Your task to perform on an android device: turn off translation in the chrome app Image 0: 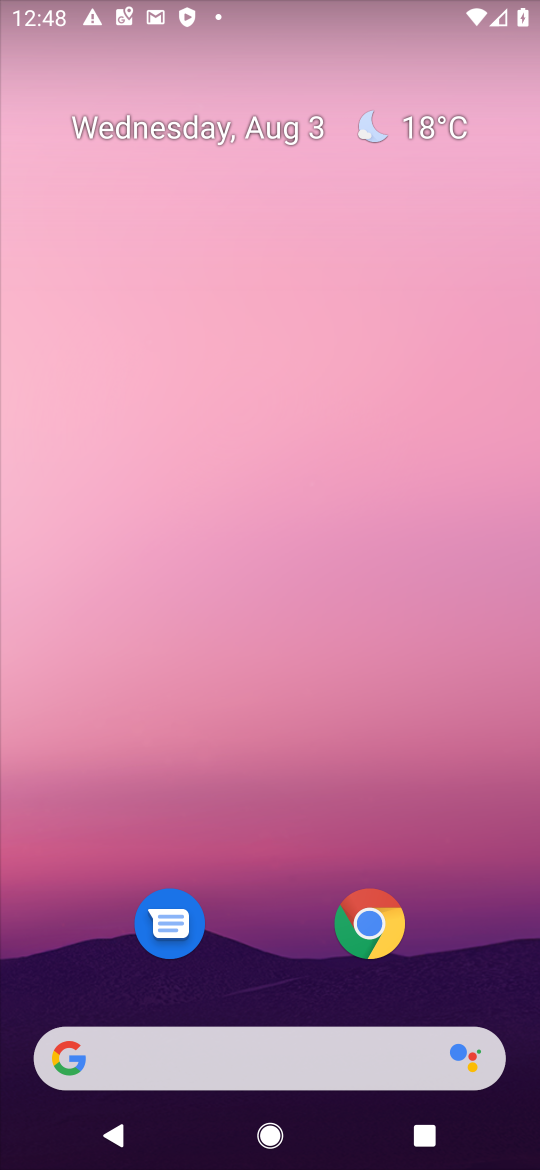
Step 0: drag from (353, 658) to (403, 328)
Your task to perform on an android device: turn off translation in the chrome app Image 1: 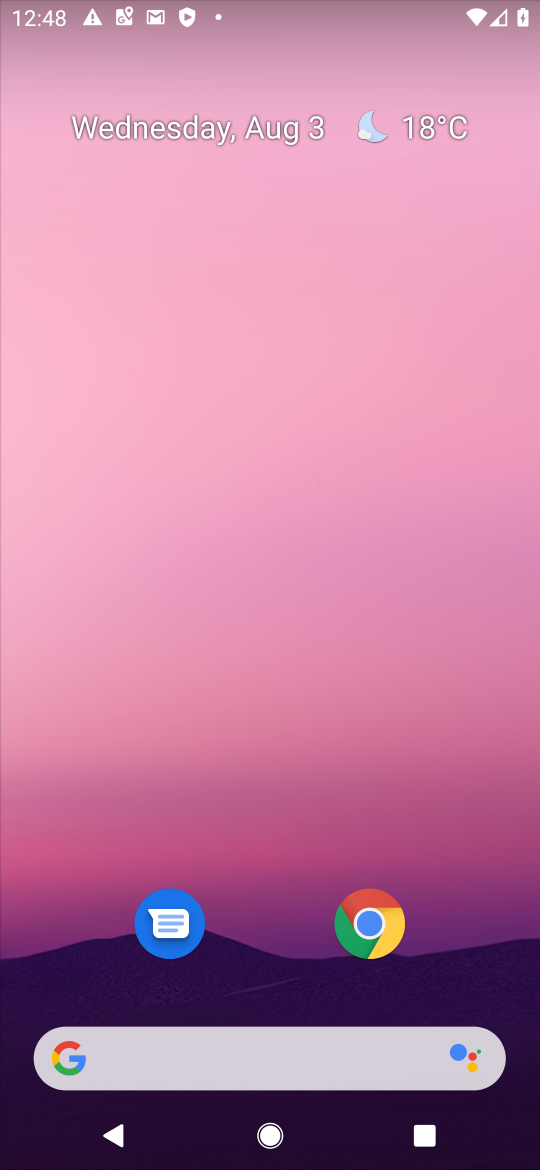
Step 1: drag from (258, 764) to (238, 419)
Your task to perform on an android device: turn off translation in the chrome app Image 2: 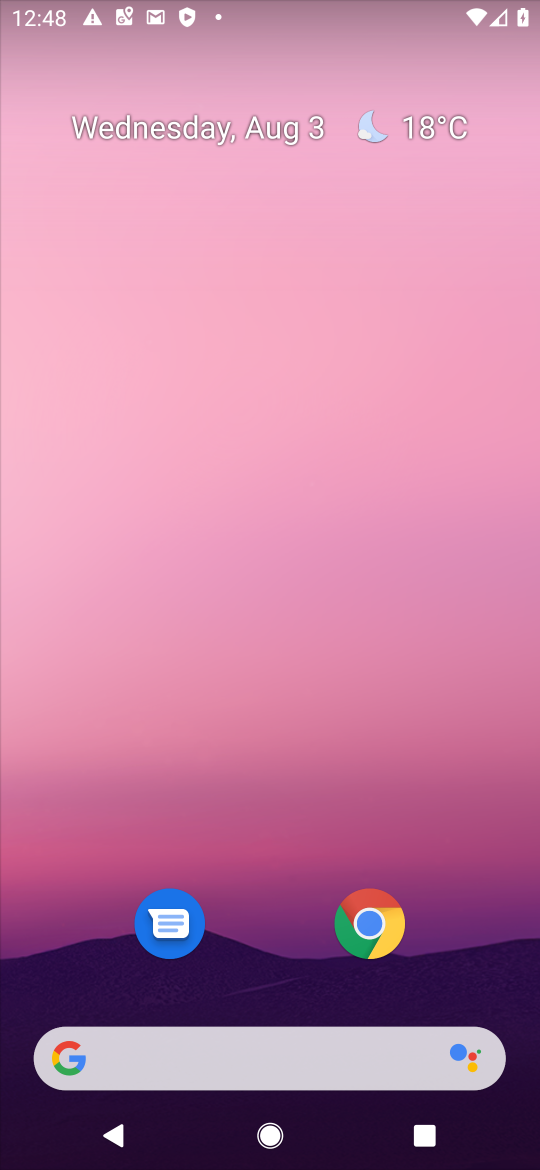
Step 2: drag from (283, 859) to (331, 28)
Your task to perform on an android device: turn off translation in the chrome app Image 3: 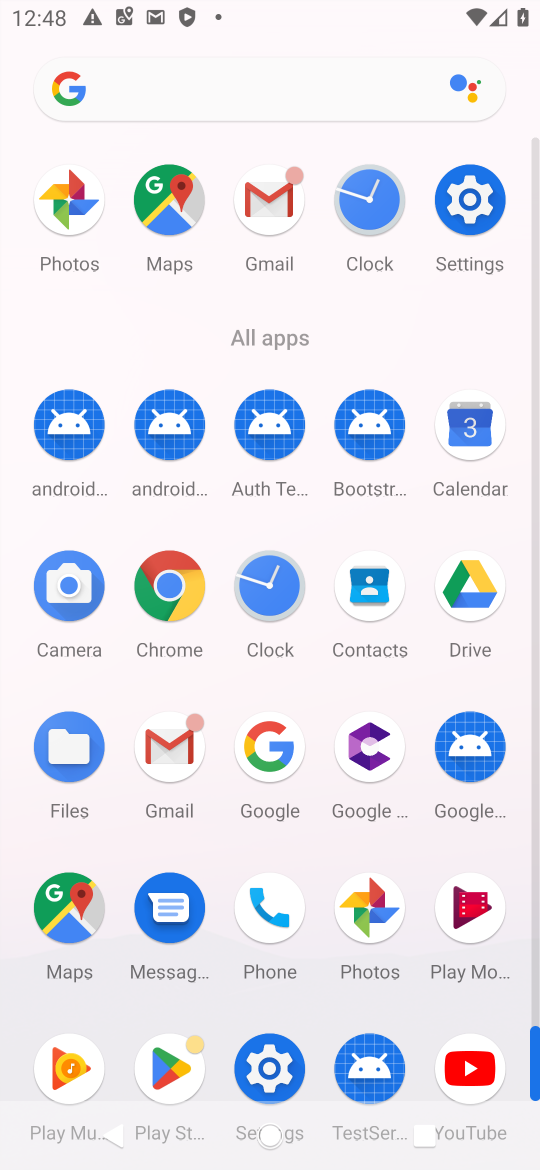
Step 3: drag from (290, 724) to (324, 415)
Your task to perform on an android device: turn off translation in the chrome app Image 4: 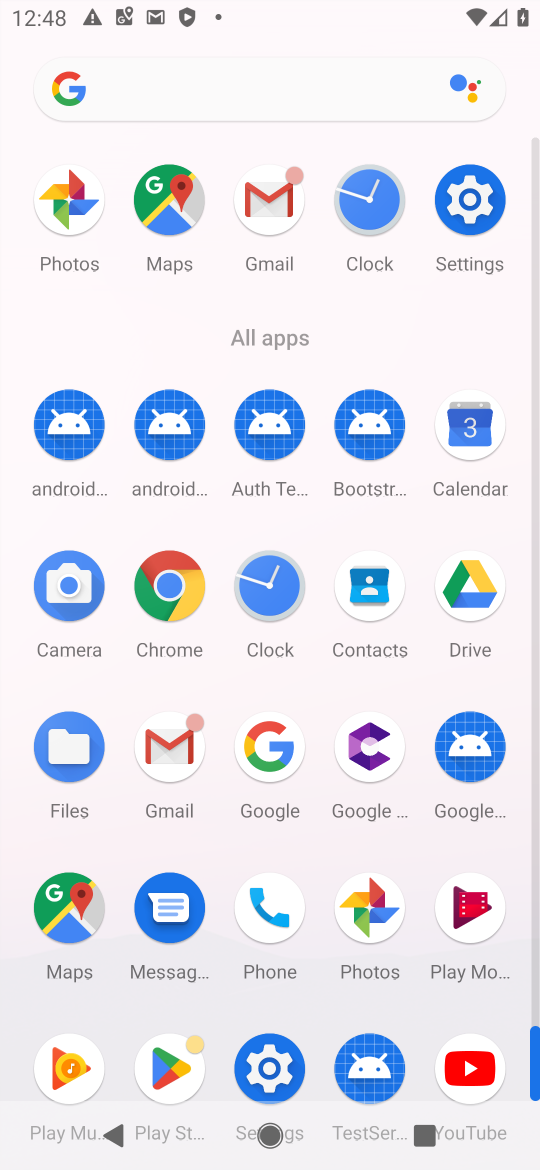
Step 4: click (162, 572)
Your task to perform on an android device: turn off translation in the chrome app Image 5: 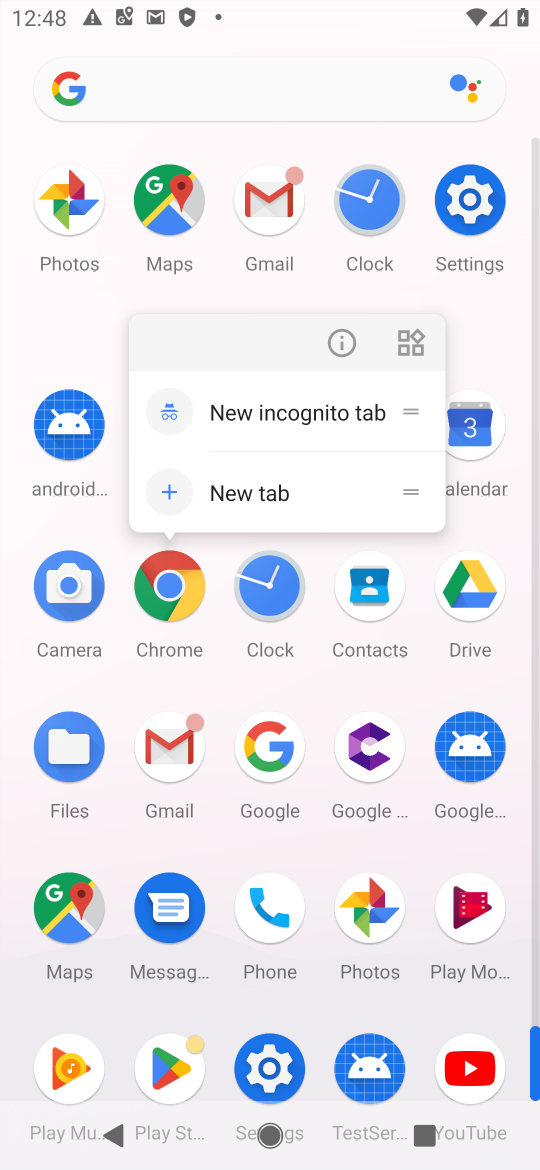
Step 5: click (322, 331)
Your task to perform on an android device: turn off translation in the chrome app Image 6: 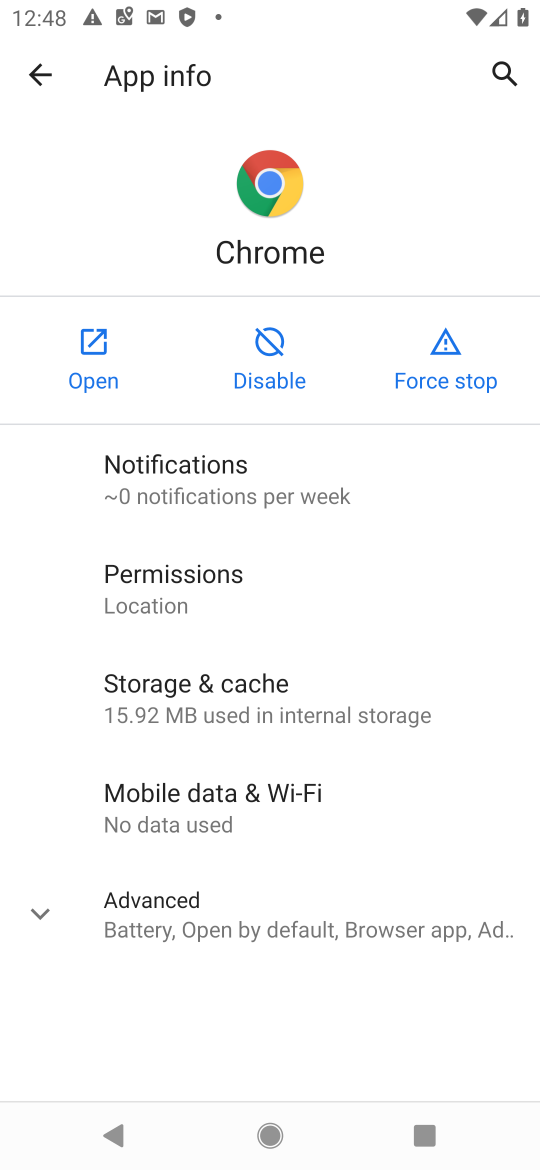
Step 6: click (95, 343)
Your task to perform on an android device: turn off translation in the chrome app Image 7: 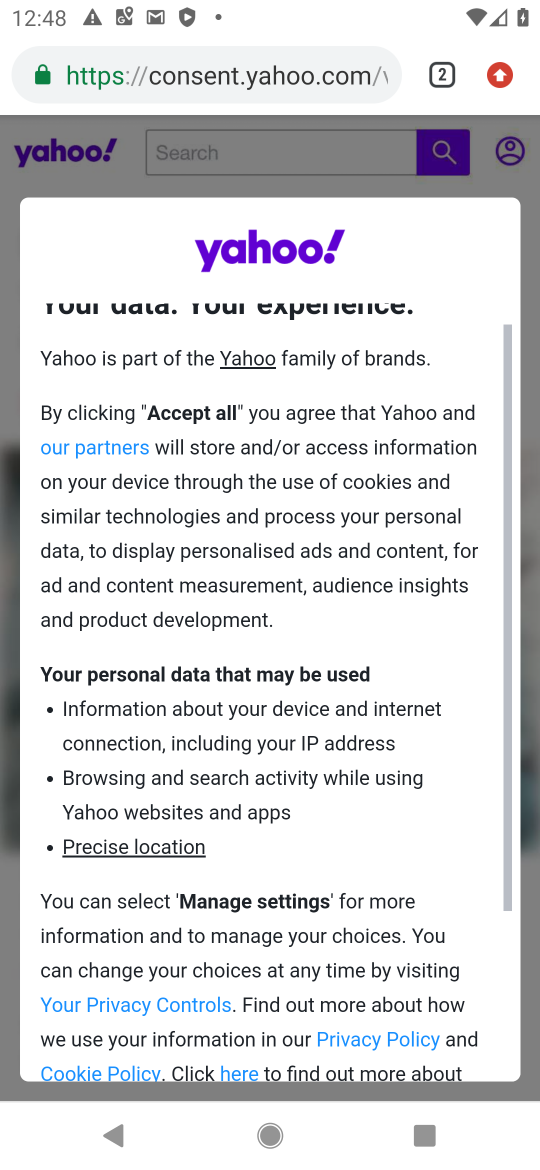
Step 7: drag from (316, 906) to (339, 376)
Your task to perform on an android device: turn off translation in the chrome app Image 8: 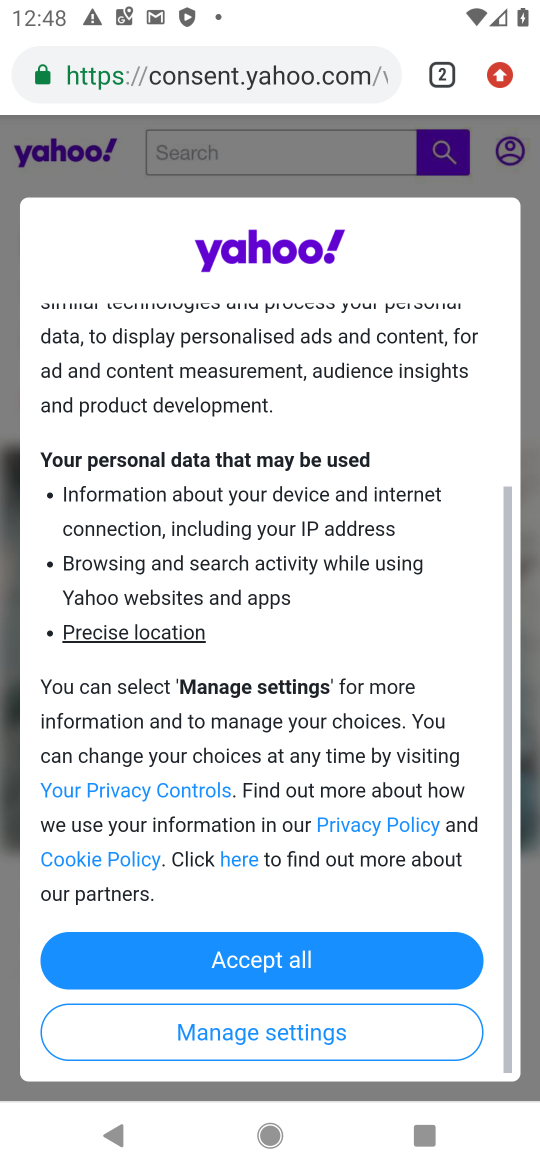
Step 8: click (344, 419)
Your task to perform on an android device: turn off translation in the chrome app Image 9: 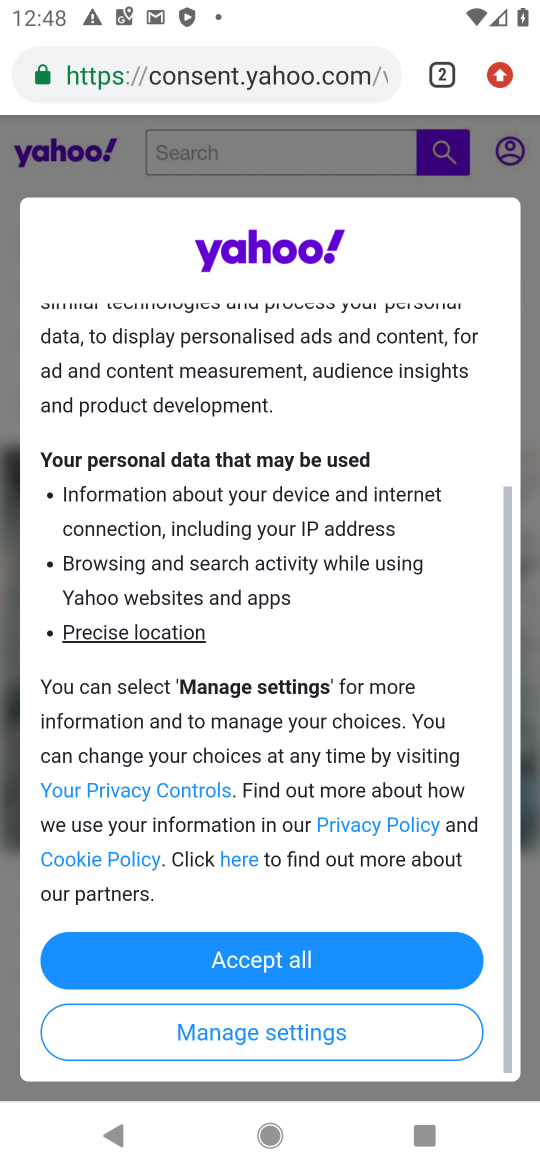
Step 9: drag from (505, 71) to (308, 980)
Your task to perform on an android device: turn off translation in the chrome app Image 10: 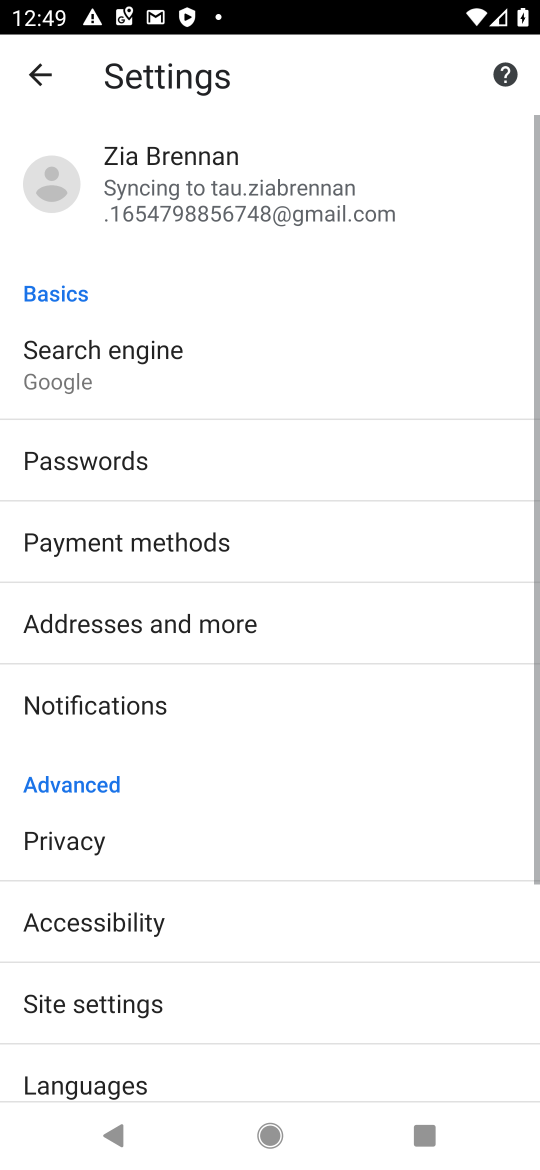
Step 10: drag from (222, 993) to (334, 358)
Your task to perform on an android device: turn off translation in the chrome app Image 11: 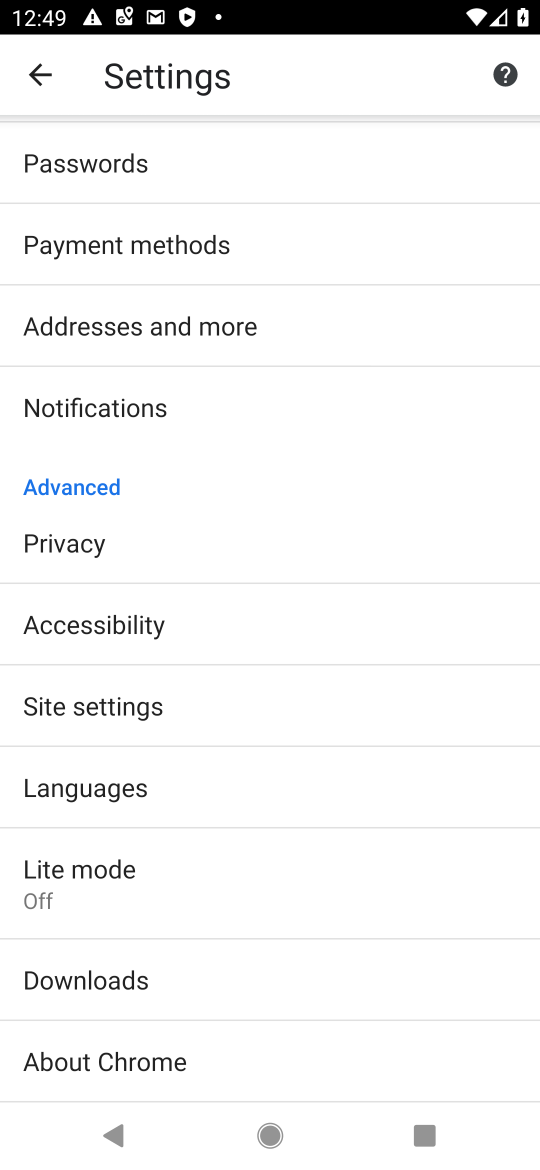
Step 11: drag from (188, 906) to (202, 721)
Your task to perform on an android device: turn off translation in the chrome app Image 12: 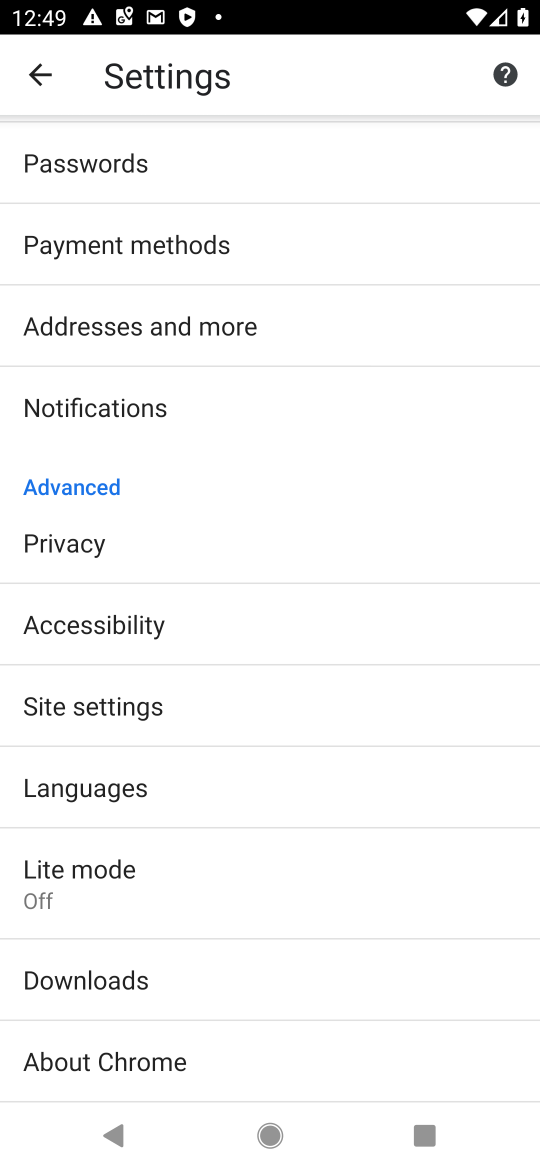
Step 12: drag from (225, 967) to (235, 648)
Your task to perform on an android device: turn off translation in the chrome app Image 13: 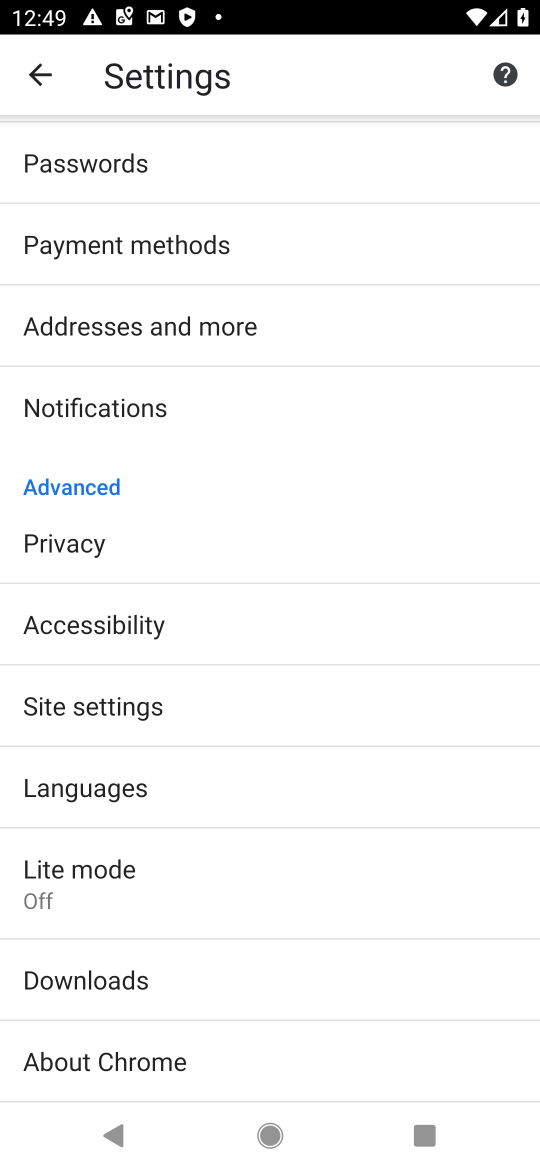
Step 13: drag from (219, 554) to (277, 1006)
Your task to perform on an android device: turn off translation in the chrome app Image 14: 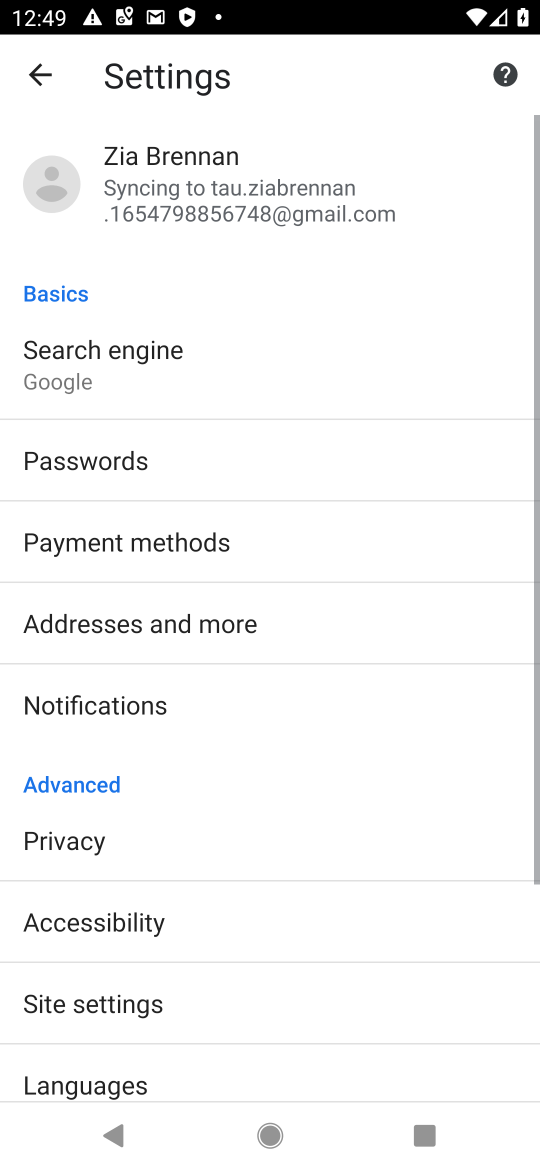
Step 14: drag from (274, 923) to (510, 308)
Your task to perform on an android device: turn off translation in the chrome app Image 15: 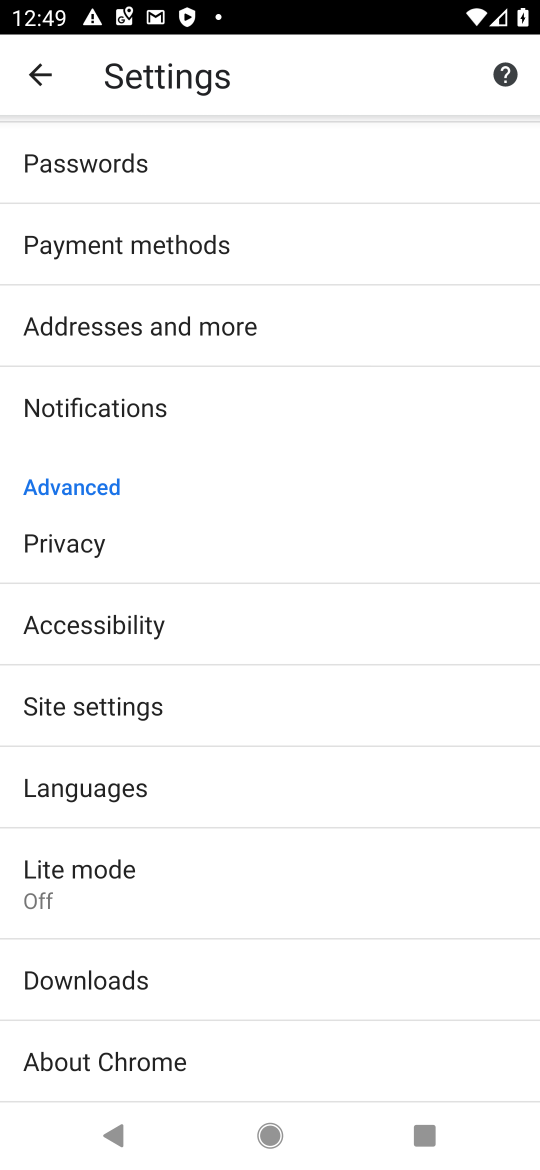
Step 15: click (153, 786)
Your task to perform on an android device: turn off translation in the chrome app Image 16: 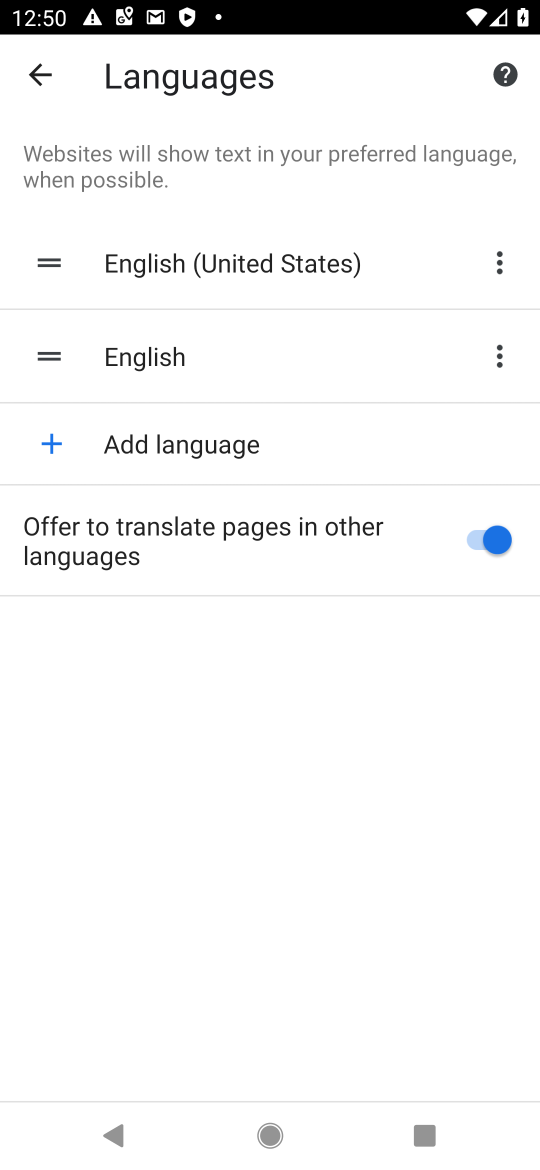
Step 16: drag from (257, 753) to (268, 253)
Your task to perform on an android device: turn off translation in the chrome app Image 17: 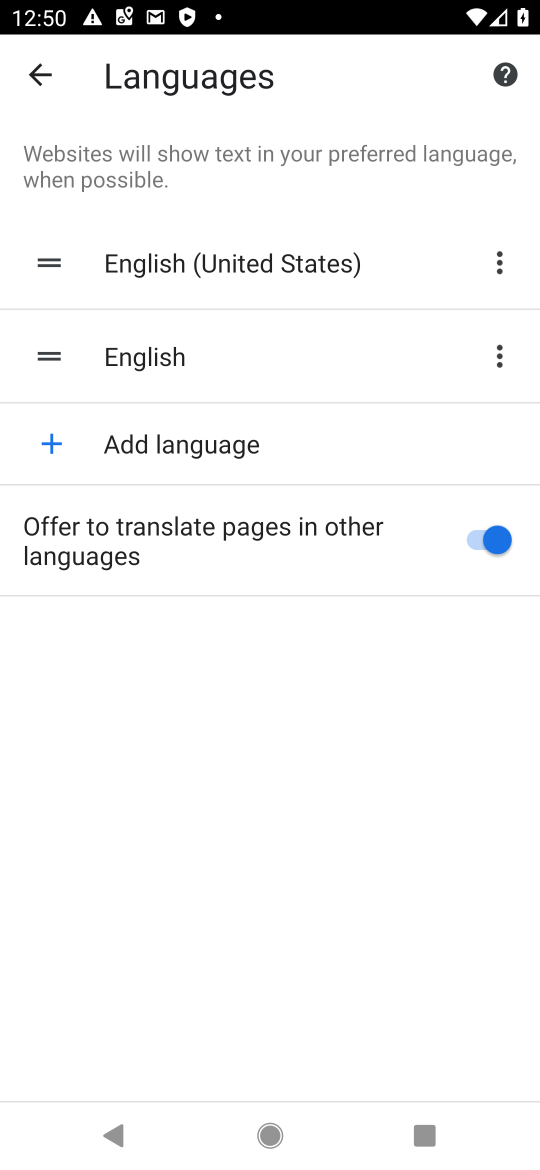
Step 17: click (151, 465)
Your task to perform on an android device: turn off translation in the chrome app Image 18: 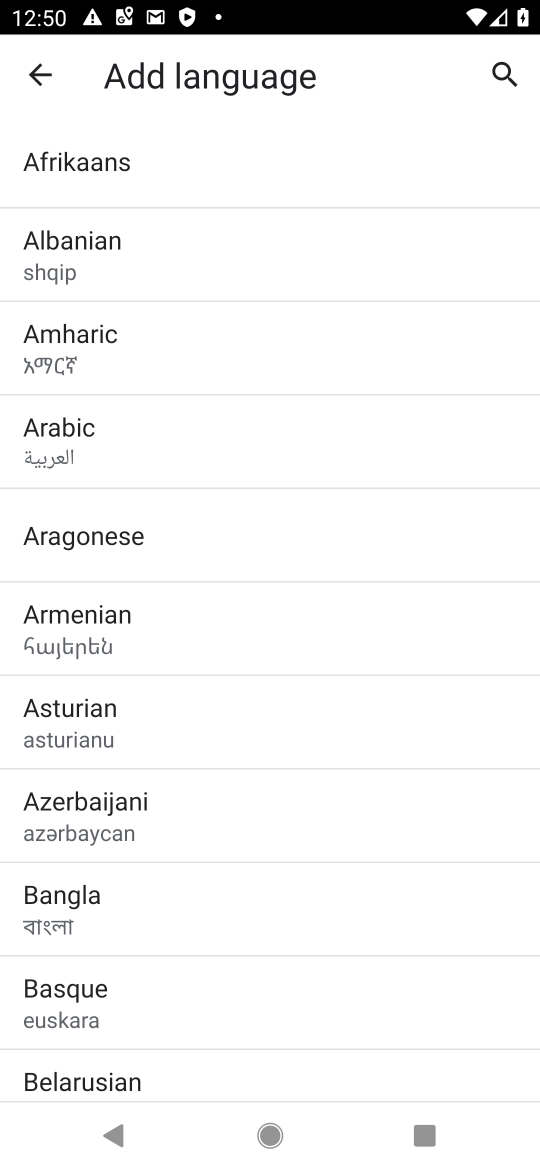
Step 18: press home button
Your task to perform on an android device: turn off translation in the chrome app Image 19: 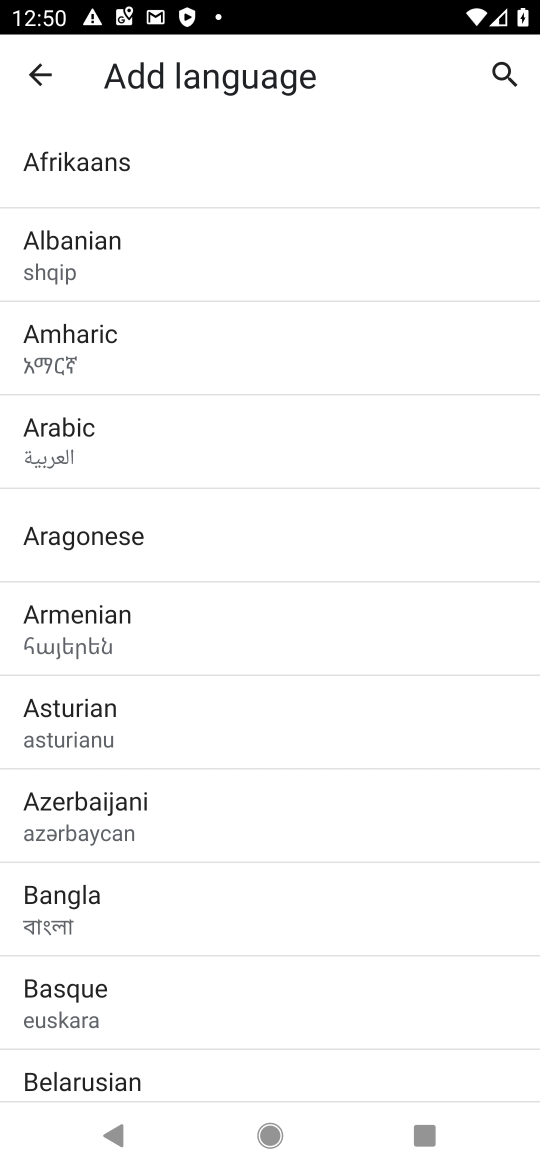
Step 19: press home button
Your task to perform on an android device: turn off translation in the chrome app Image 20: 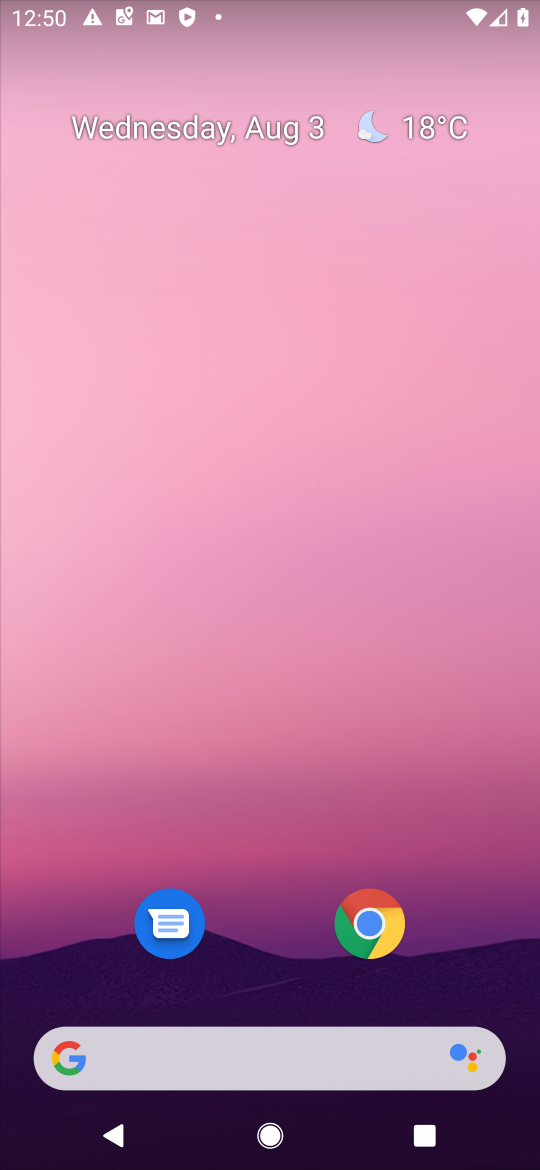
Step 20: press home button
Your task to perform on an android device: turn off translation in the chrome app Image 21: 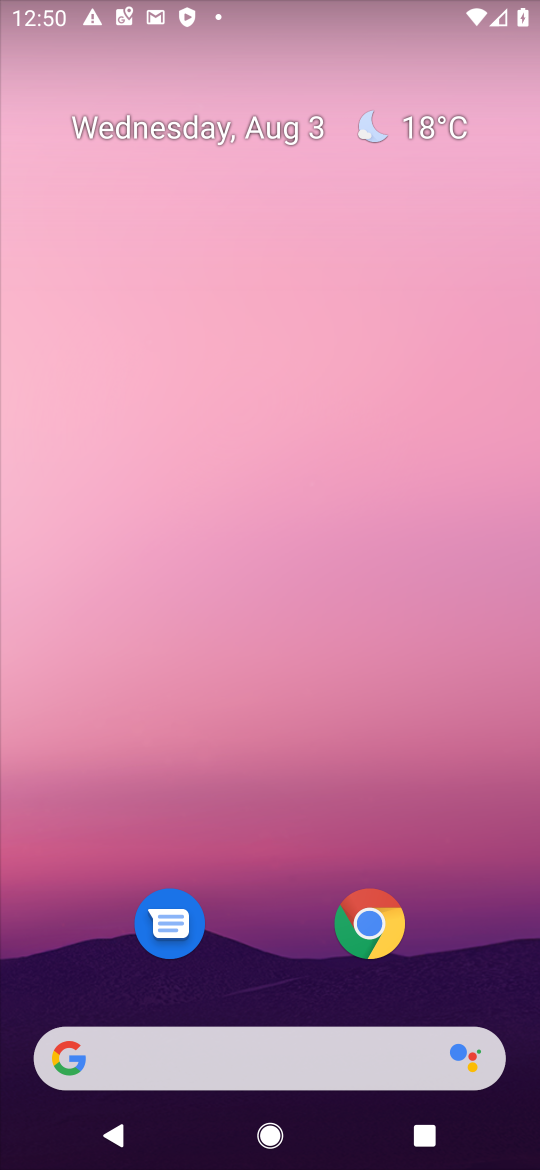
Step 21: drag from (241, 970) to (273, 235)
Your task to perform on an android device: turn off translation in the chrome app Image 22: 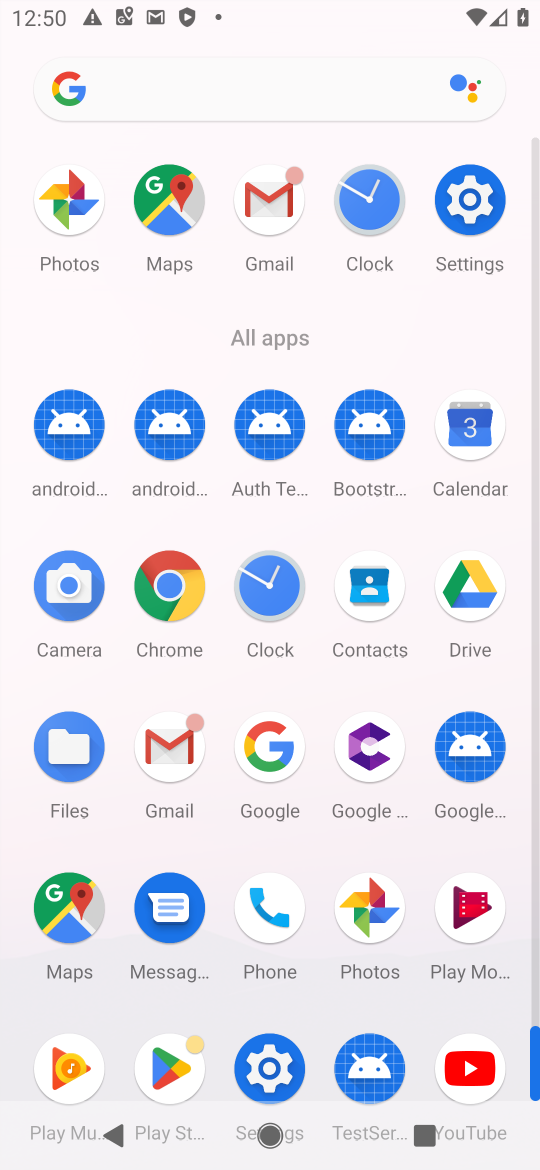
Step 22: click (141, 582)
Your task to perform on an android device: turn off translation in the chrome app Image 23: 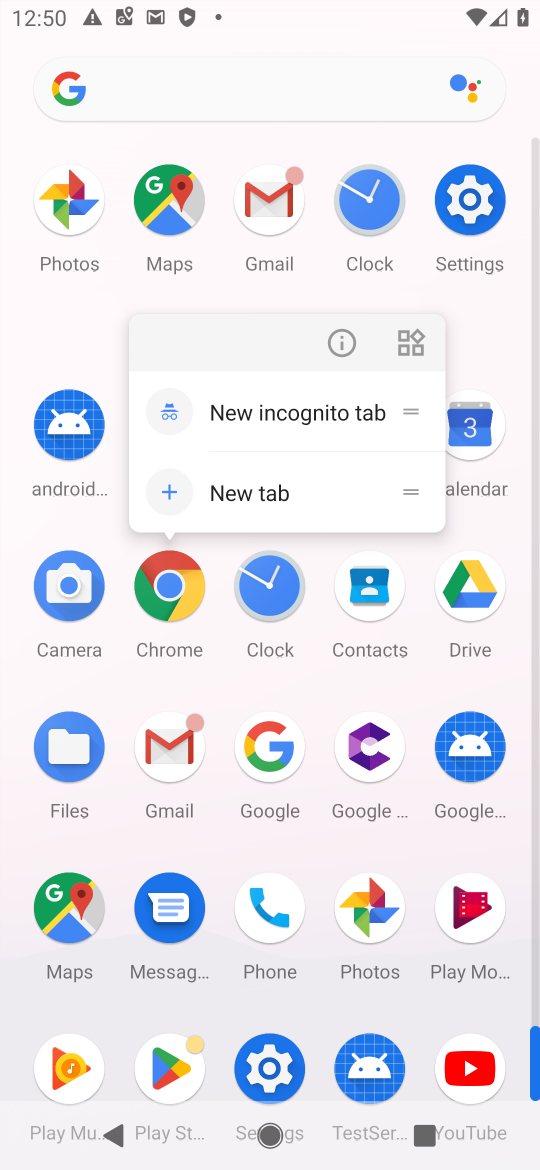
Step 23: click (346, 351)
Your task to perform on an android device: turn off translation in the chrome app Image 24: 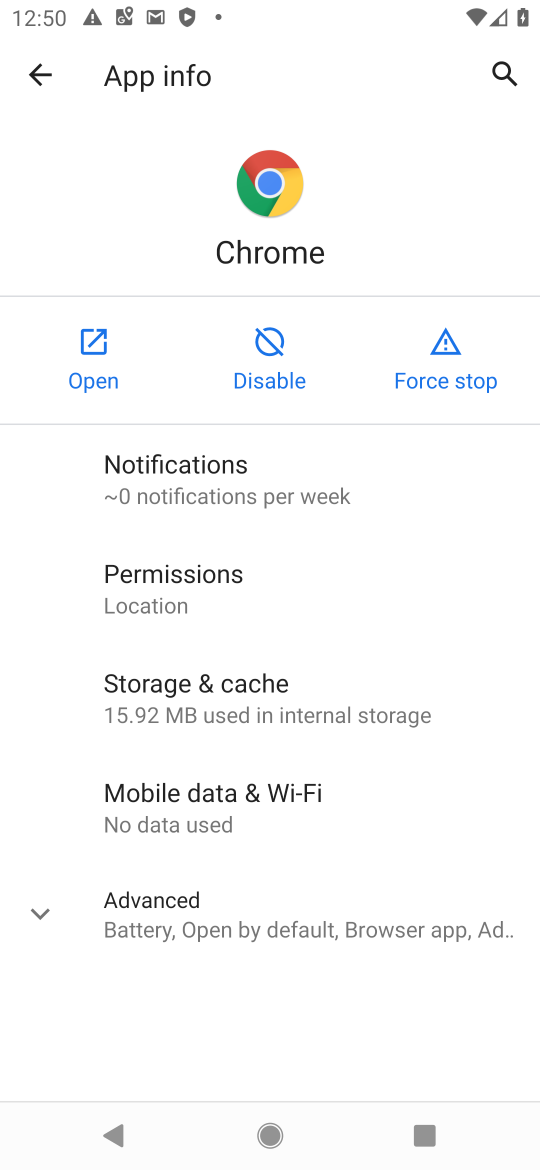
Step 24: click (84, 364)
Your task to perform on an android device: turn off translation in the chrome app Image 25: 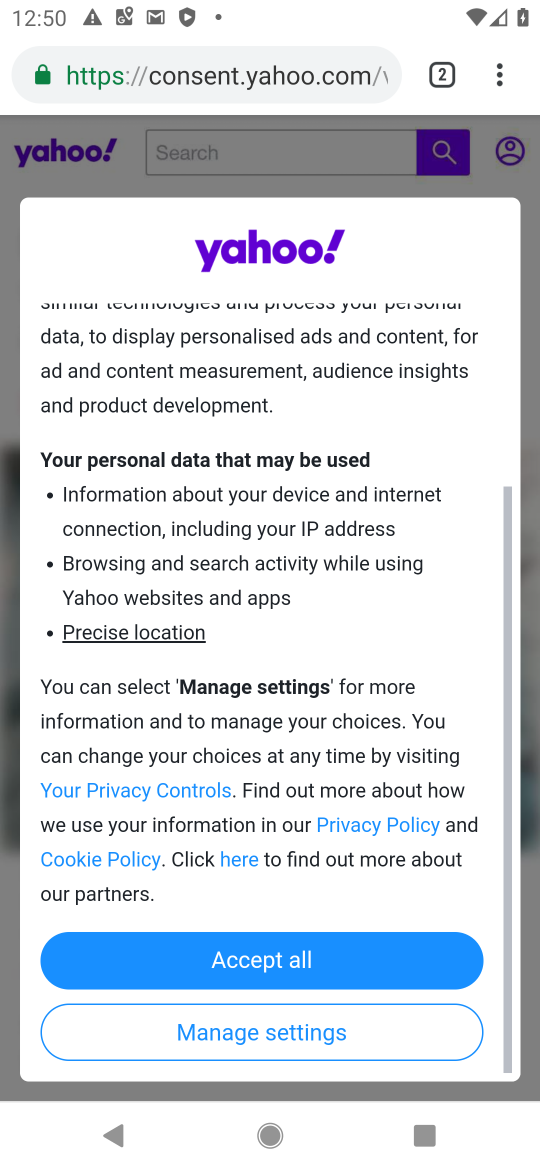
Step 25: drag from (336, 783) to (358, 329)
Your task to perform on an android device: turn off translation in the chrome app Image 26: 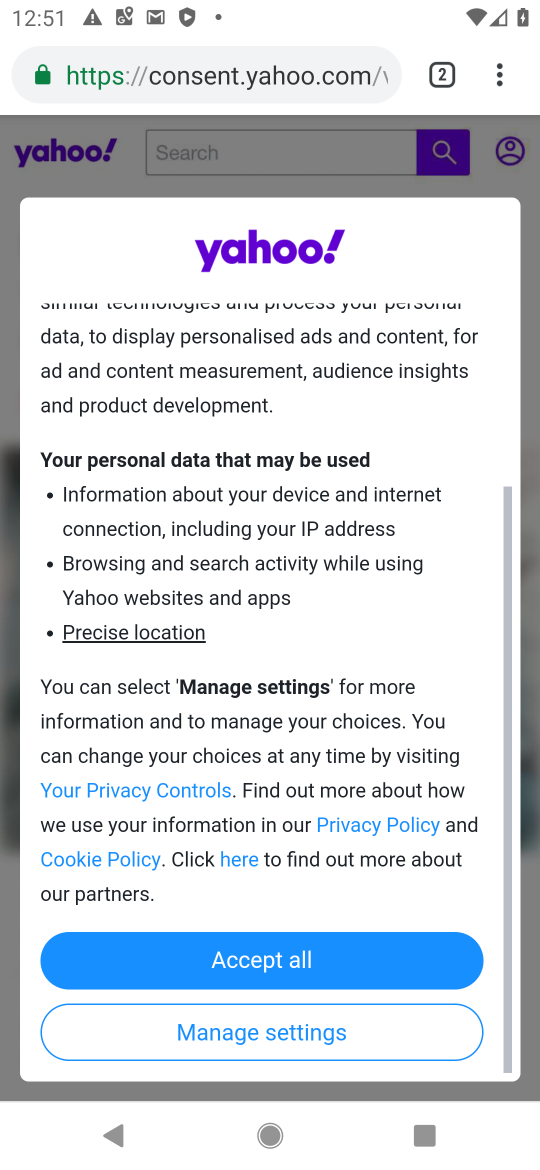
Step 26: drag from (311, 786) to (200, 361)
Your task to perform on an android device: turn off translation in the chrome app Image 27: 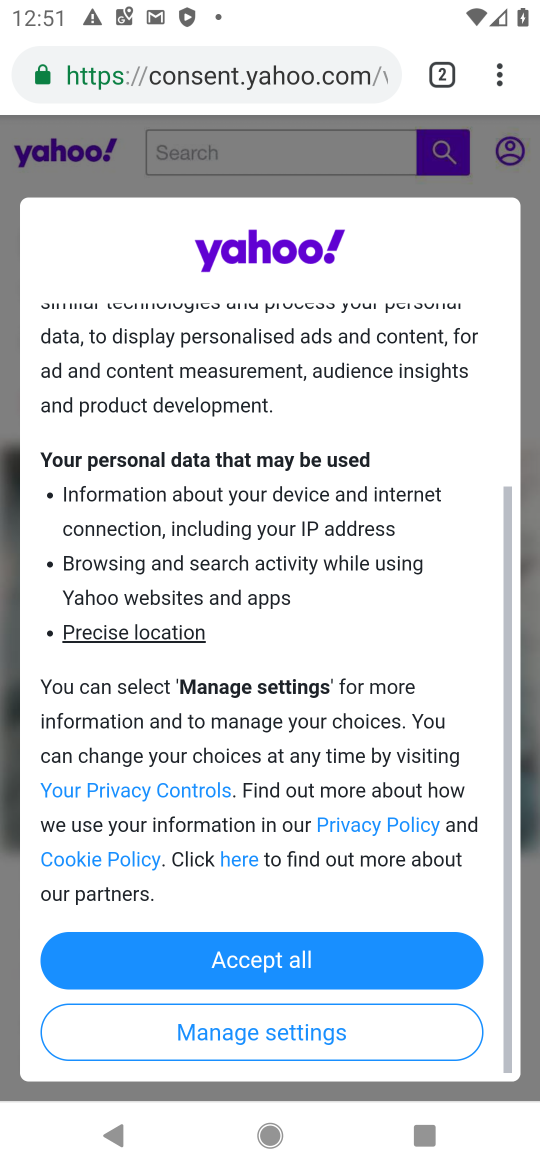
Step 27: drag from (233, 385) to (250, 1001)
Your task to perform on an android device: turn off translation in the chrome app Image 28: 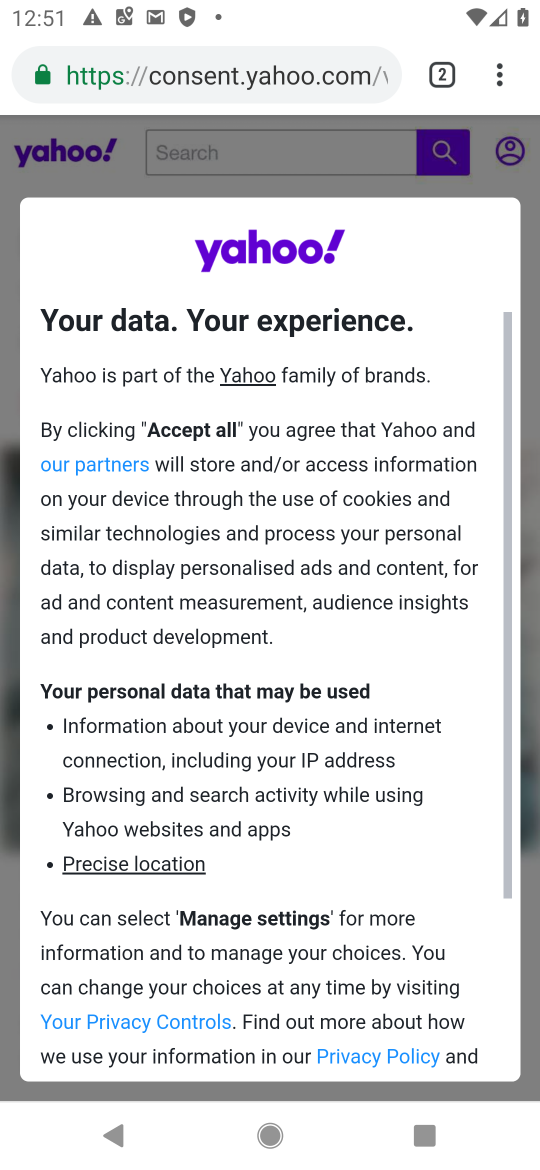
Step 28: drag from (267, 762) to (275, 343)
Your task to perform on an android device: turn off translation in the chrome app Image 29: 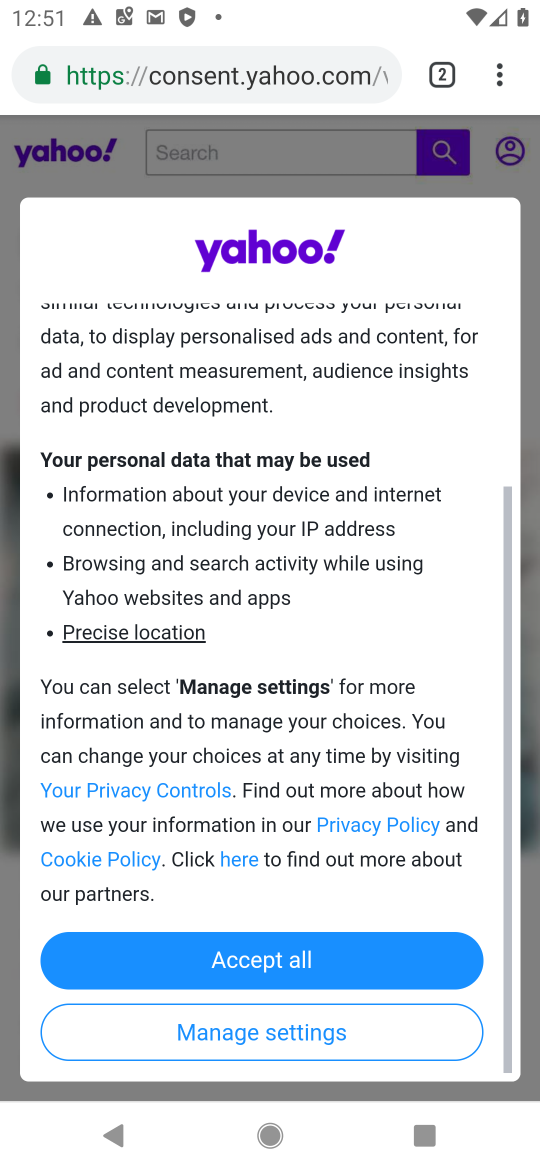
Step 29: drag from (279, 753) to (264, 674)
Your task to perform on an android device: turn off translation in the chrome app Image 30: 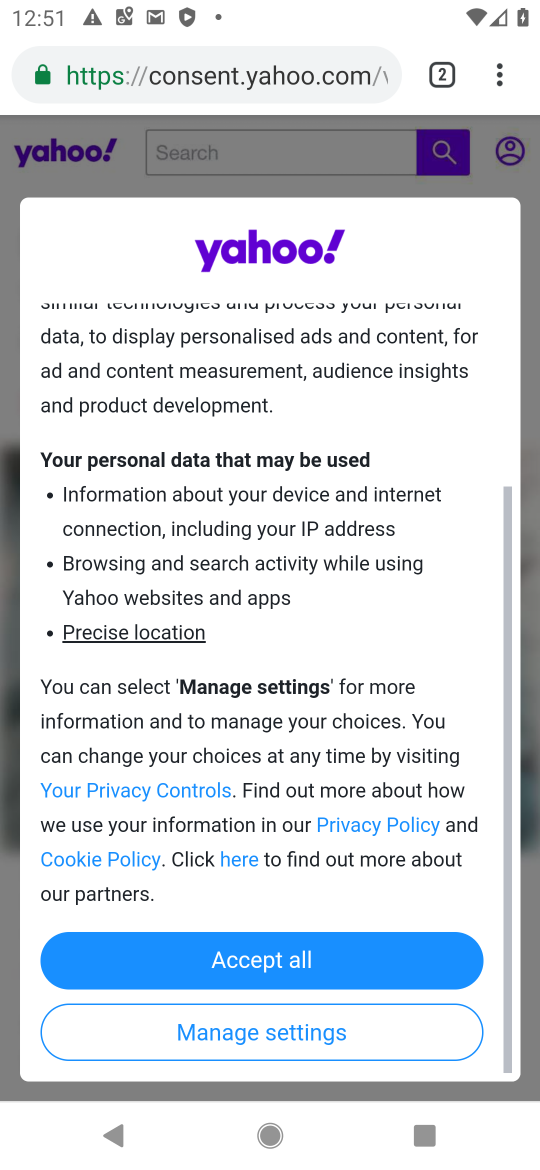
Step 30: drag from (505, 75) to (313, 988)
Your task to perform on an android device: turn off translation in the chrome app Image 31: 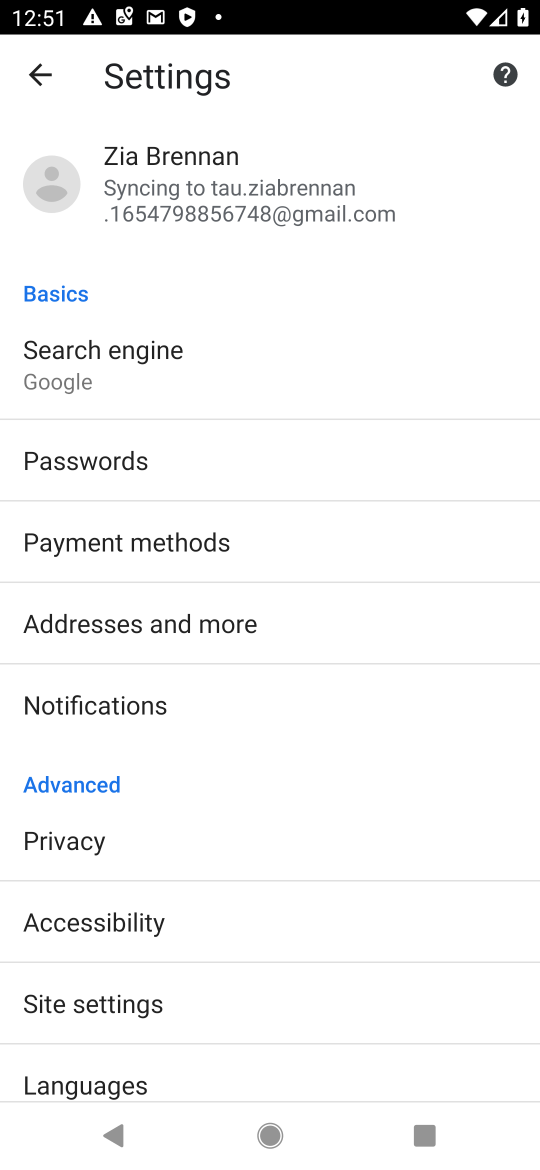
Step 31: drag from (203, 1057) to (224, 207)
Your task to perform on an android device: turn off translation in the chrome app Image 32: 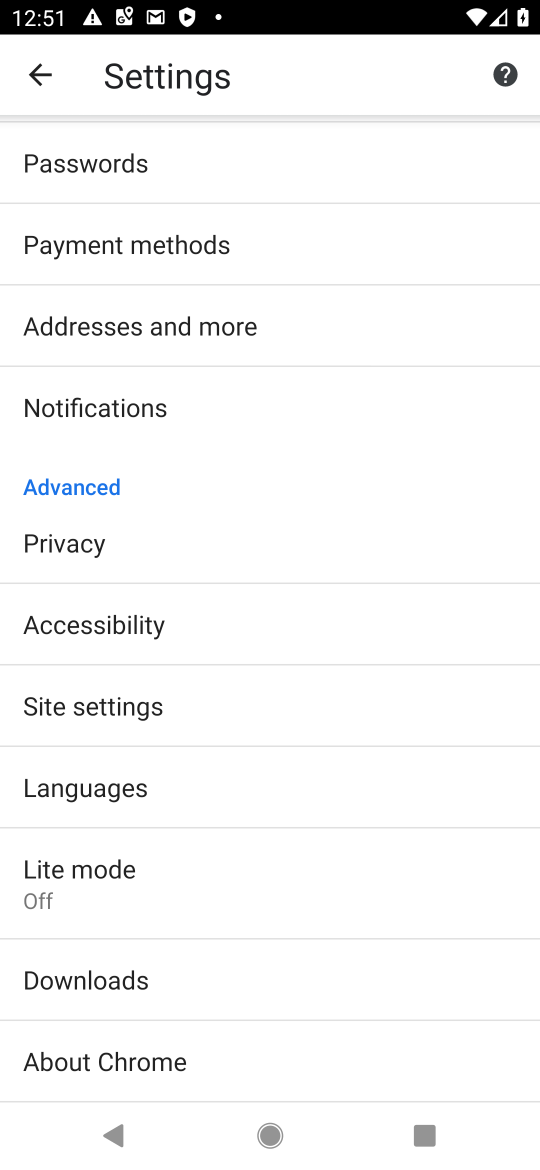
Step 32: drag from (256, 941) to (211, 694)
Your task to perform on an android device: turn off translation in the chrome app Image 33: 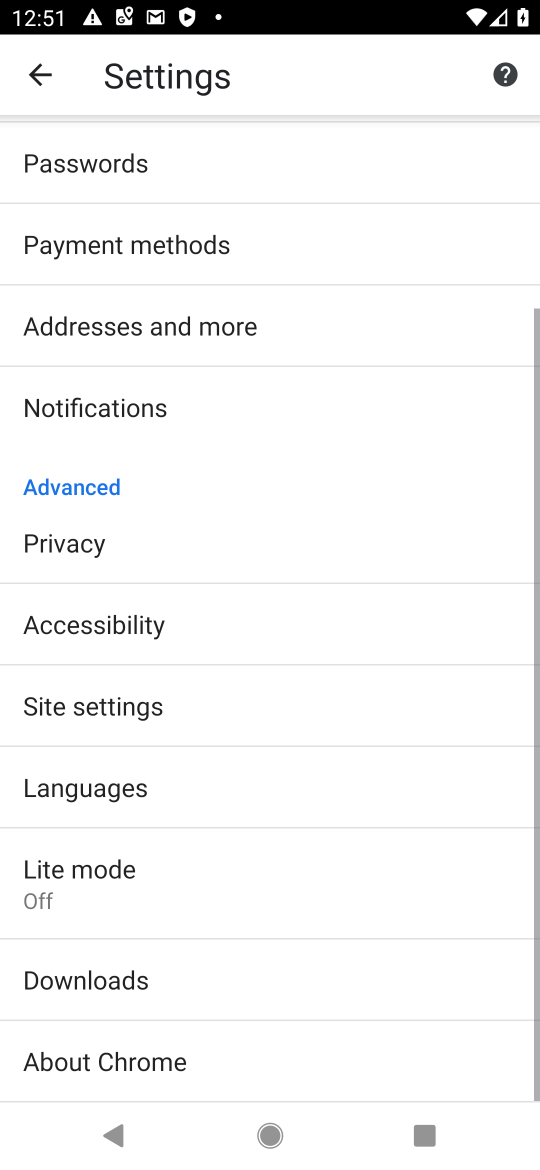
Step 33: drag from (218, 870) to (261, 490)
Your task to perform on an android device: turn off translation in the chrome app Image 34: 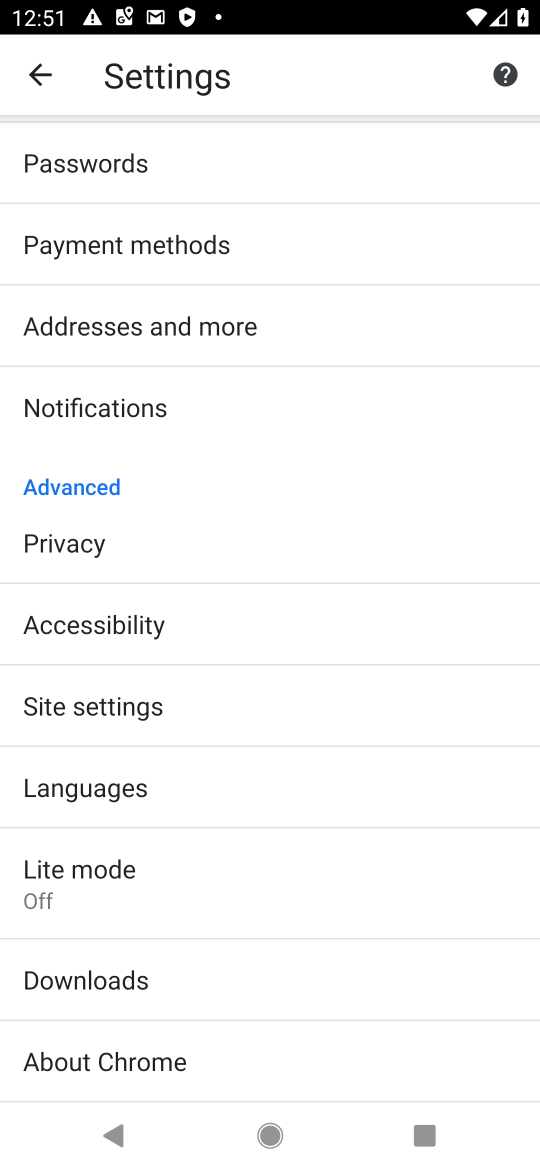
Step 34: click (211, 699)
Your task to perform on an android device: turn off translation in the chrome app Image 35: 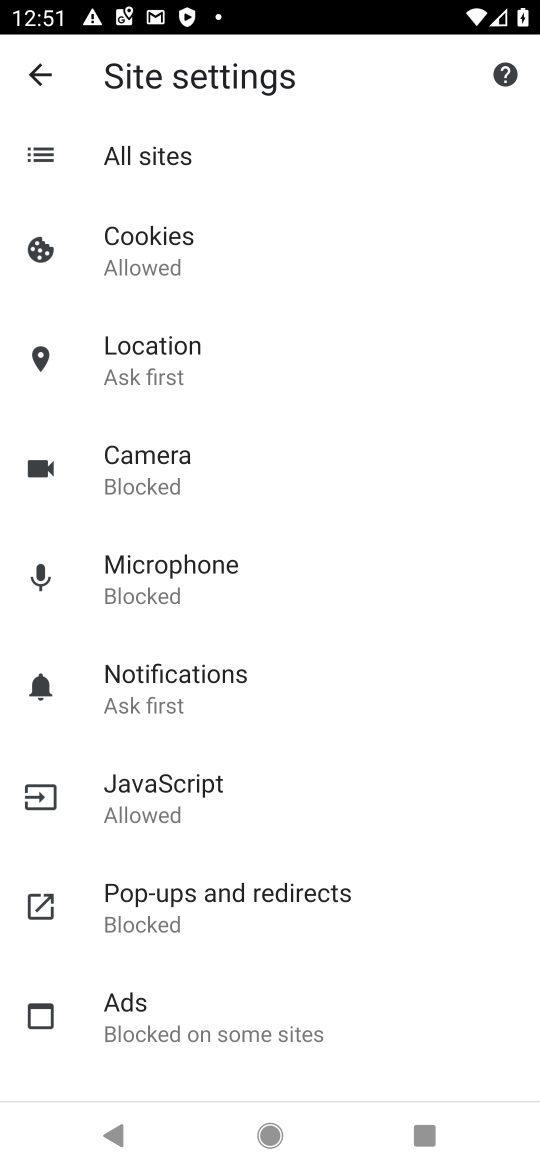
Step 35: drag from (223, 651) to (286, 378)
Your task to perform on an android device: turn off translation in the chrome app Image 36: 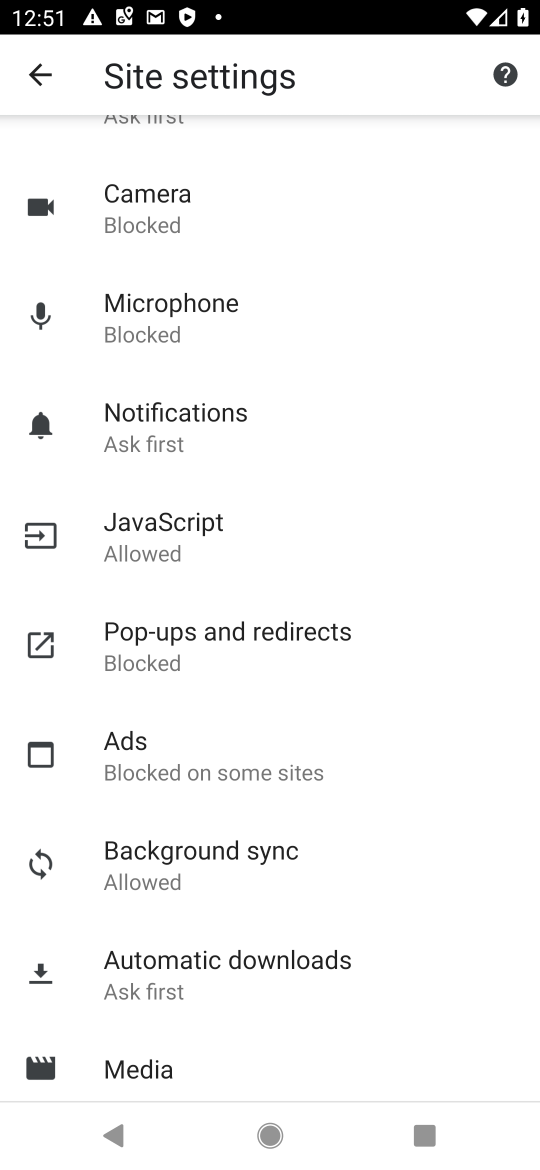
Step 36: drag from (272, 363) to (259, 1164)
Your task to perform on an android device: turn off translation in the chrome app Image 37: 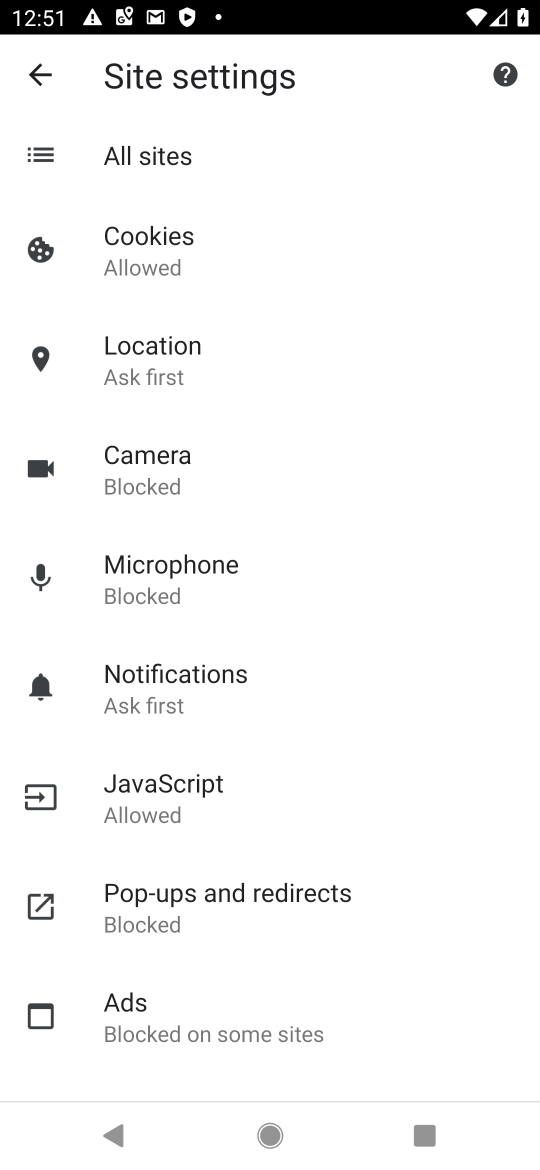
Step 37: drag from (355, 880) to (301, 570)
Your task to perform on an android device: turn off translation in the chrome app Image 38: 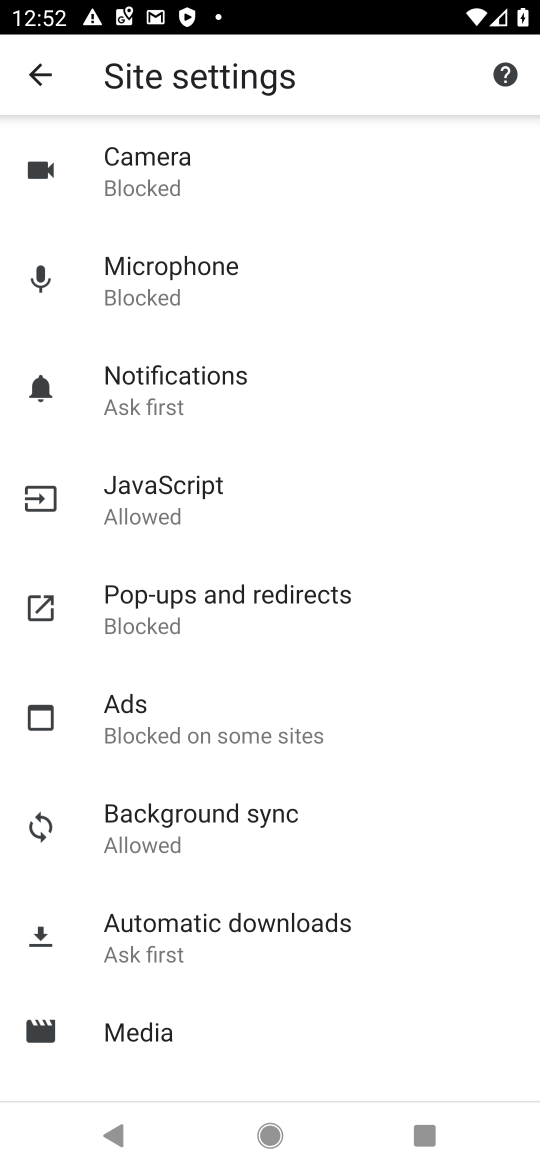
Step 38: drag from (251, 840) to (295, 422)
Your task to perform on an android device: turn off translation in the chrome app Image 39: 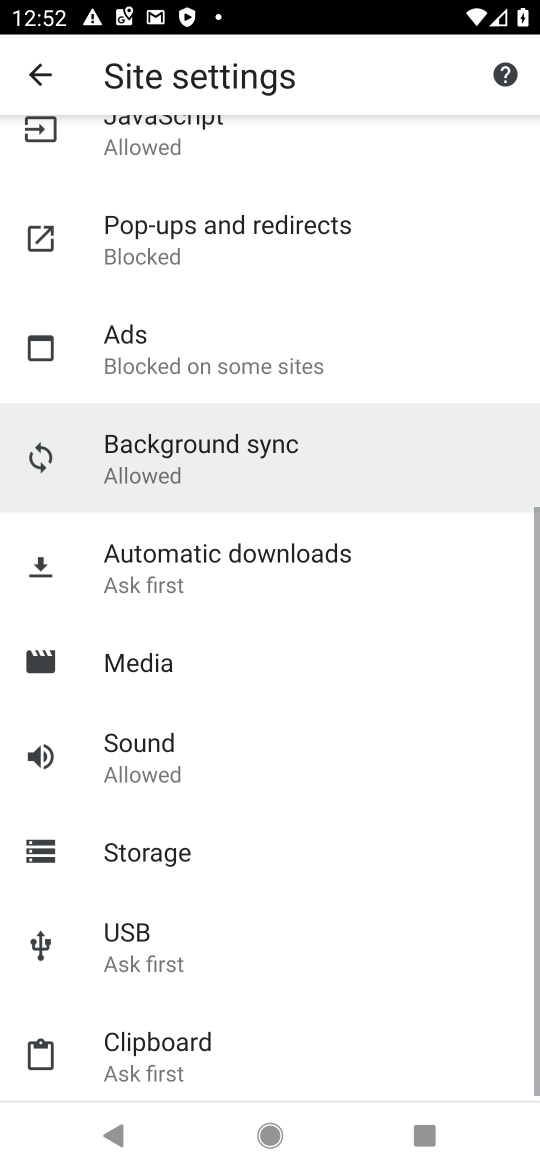
Step 39: drag from (287, 330) to (301, 1099)
Your task to perform on an android device: turn off translation in the chrome app Image 40: 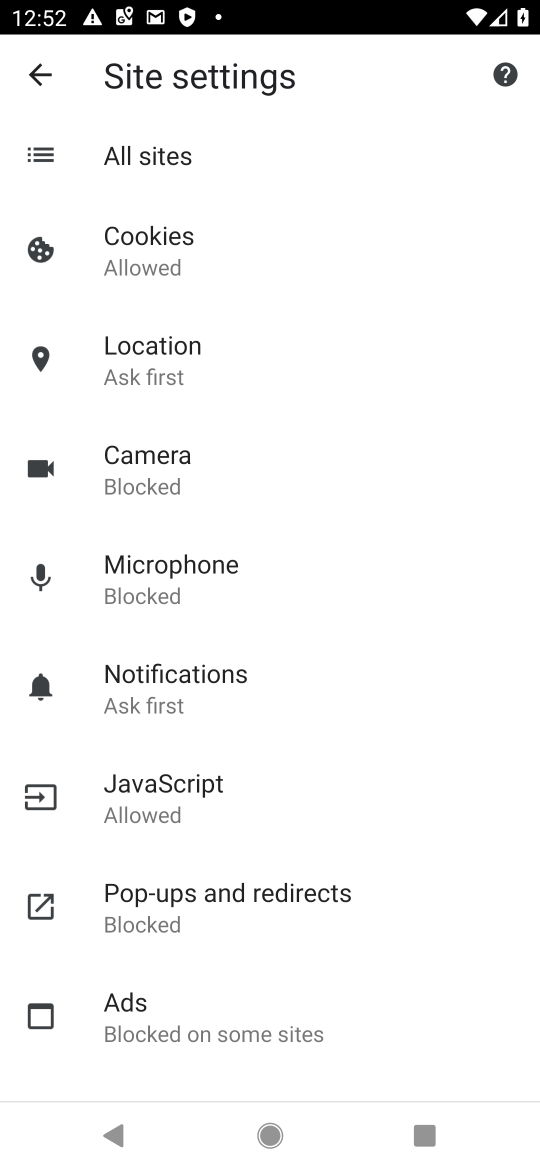
Step 40: click (30, 73)
Your task to perform on an android device: turn off translation in the chrome app Image 41: 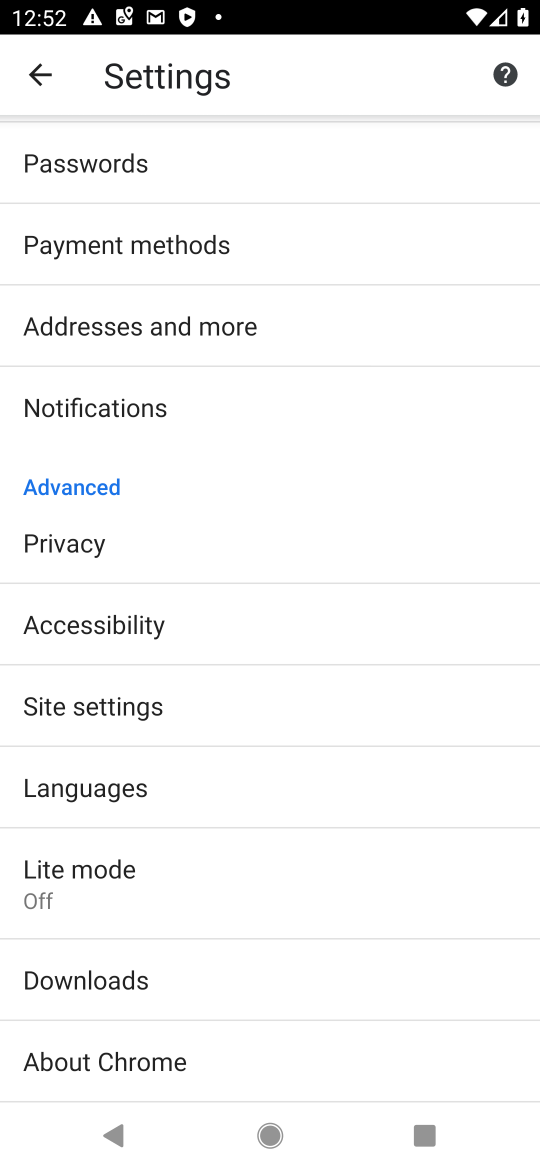
Step 41: click (176, 801)
Your task to perform on an android device: turn off translation in the chrome app Image 42: 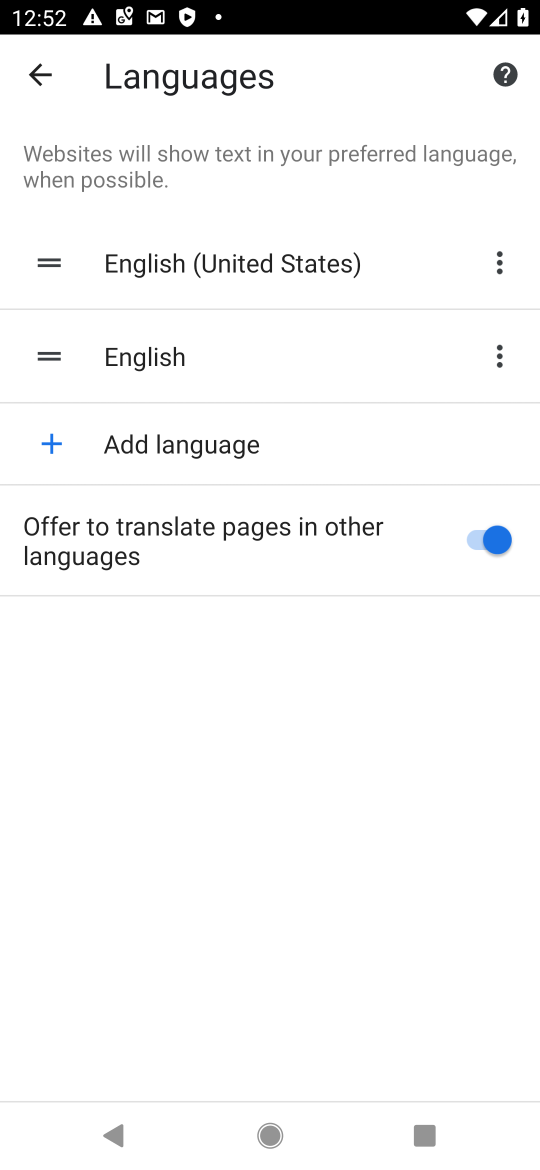
Step 42: click (475, 529)
Your task to perform on an android device: turn off translation in the chrome app Image 43: 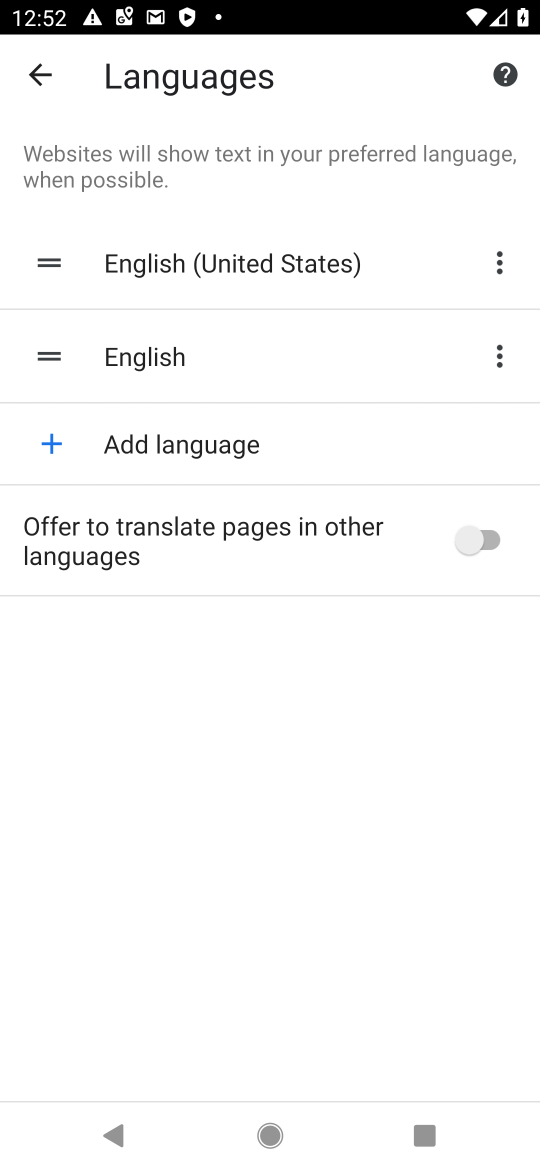
Step 43: task complete